Your task to perform on an android device: turn on the 12-hour format for clock Image 0: 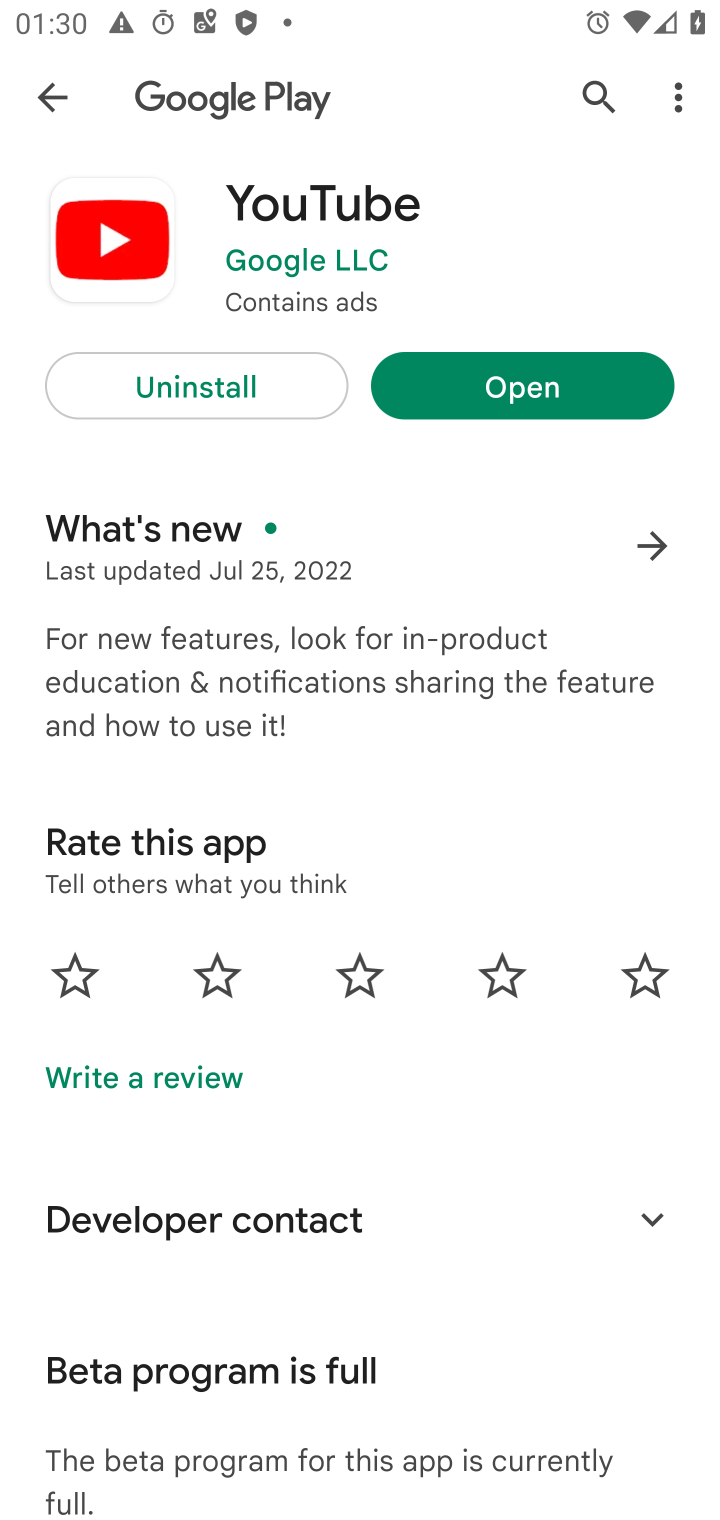
Step 0: press home button
Your task to perform on an android device: turn on the 12-hour format for clock Image 1: 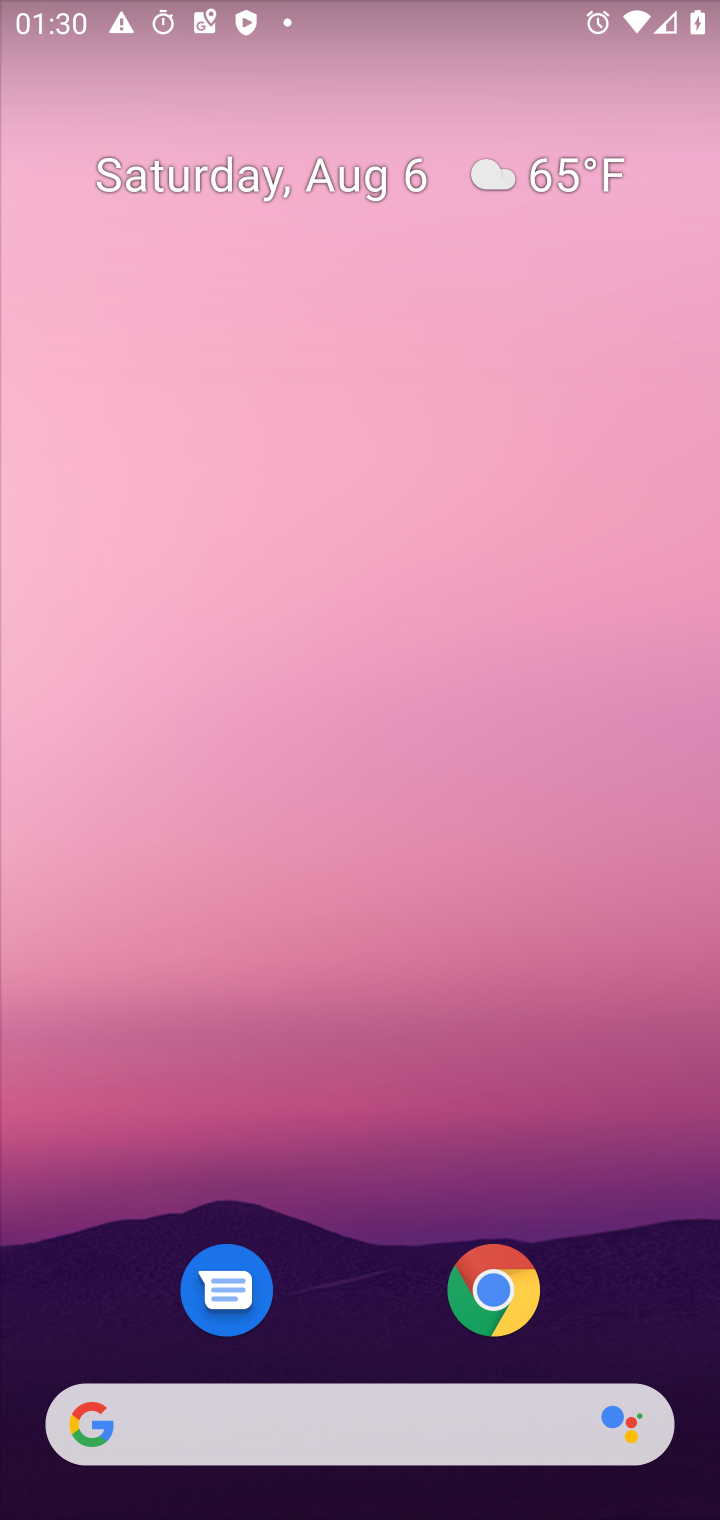
Step 1: drag from (383, 1315) to (480, 248)
Your task to perform on an android device: turn on the 12-hour format for clock Image 2: 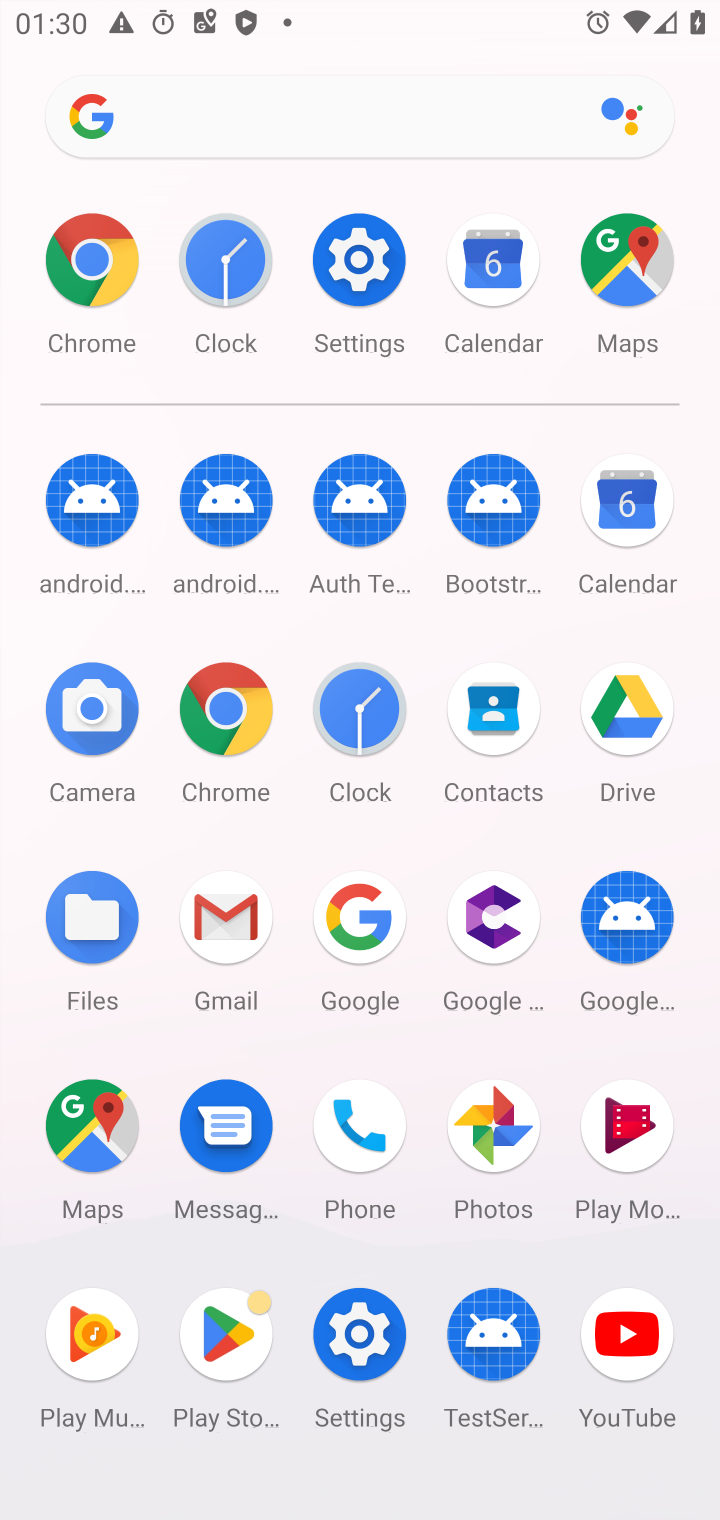
Step 2: click (355, 705)
Your task to perform on an android device: turn on the 12-hour format for clock Image 3: 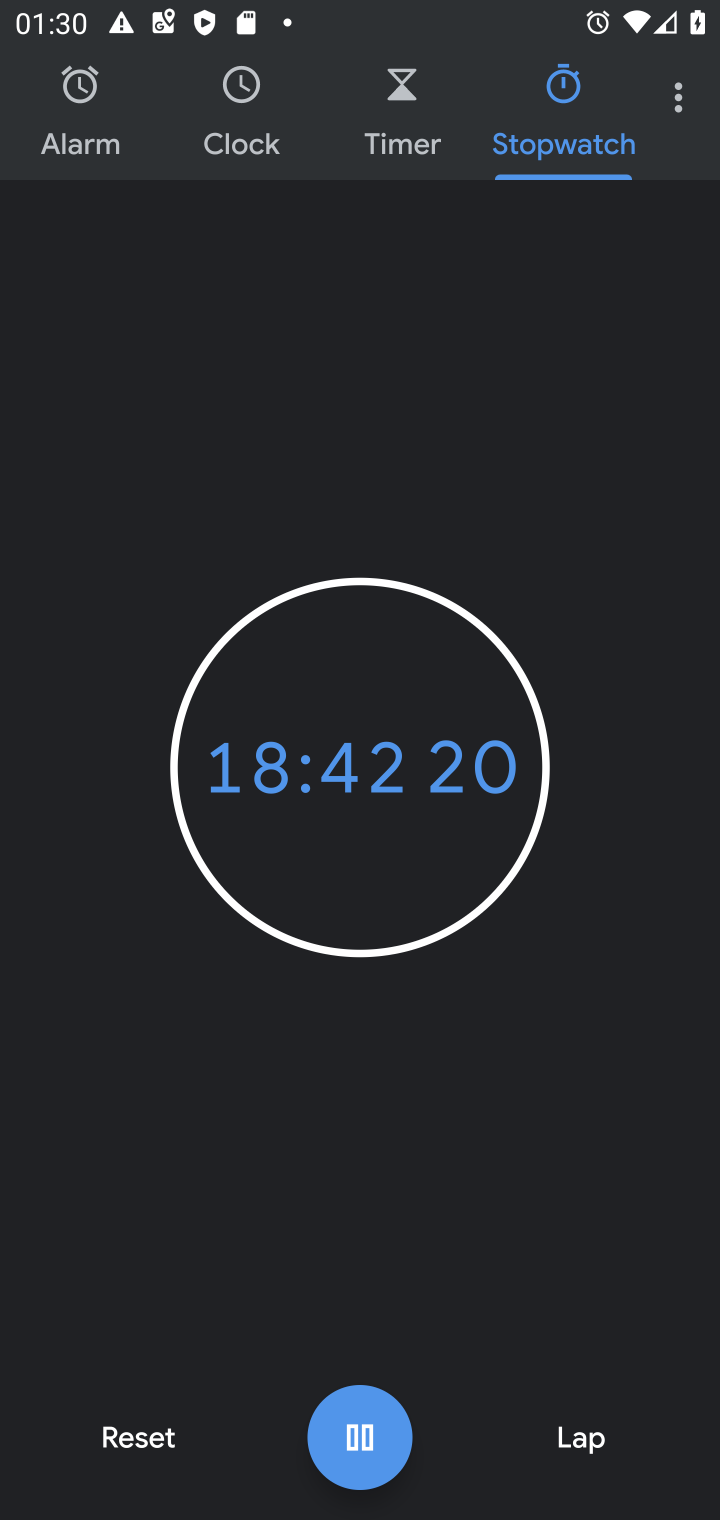
Step 3: click (676, 90)
Your task to perform on an android device: turn on the 12-hour format for clock Image 4: 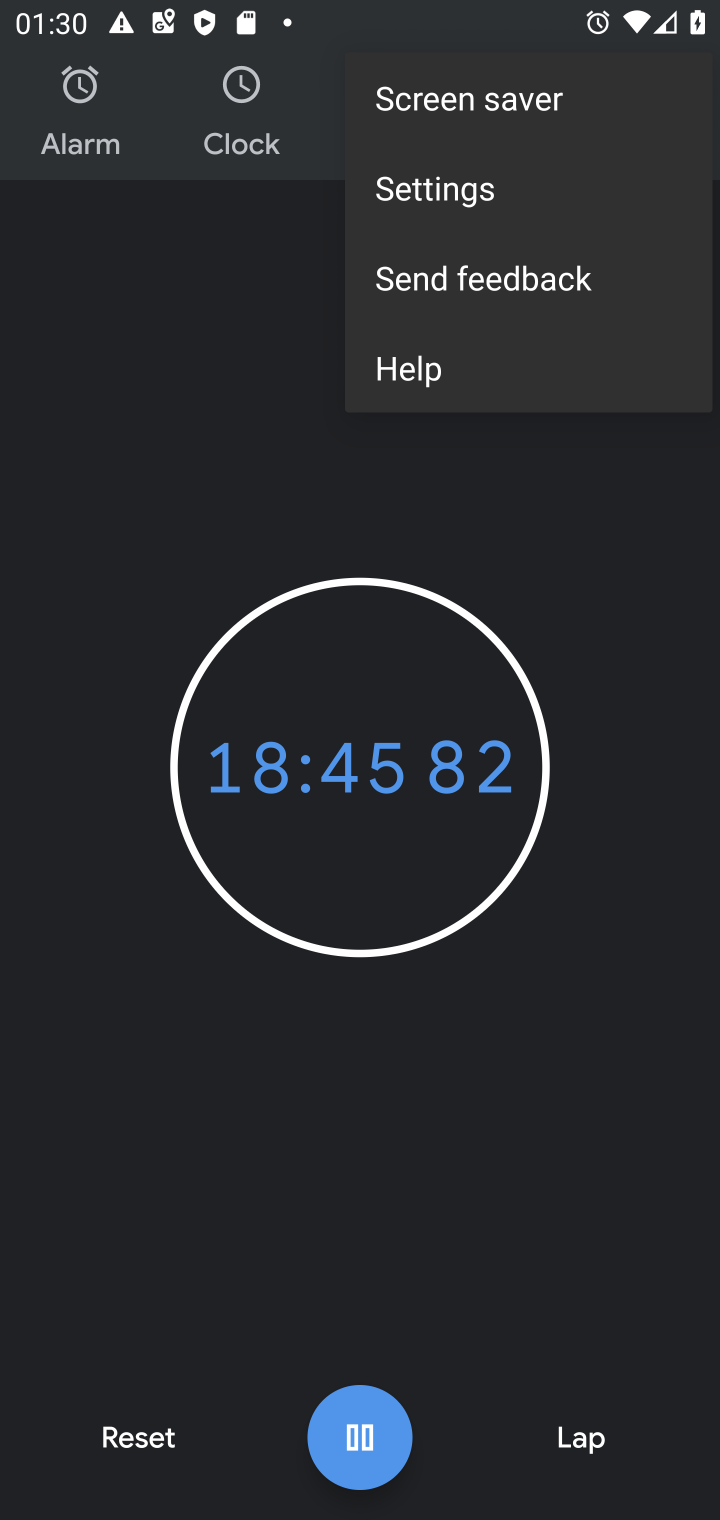
Step 4: click (508, 191)
Your task to perform on an android device: turn on the 12-hour format for clock Image 5: 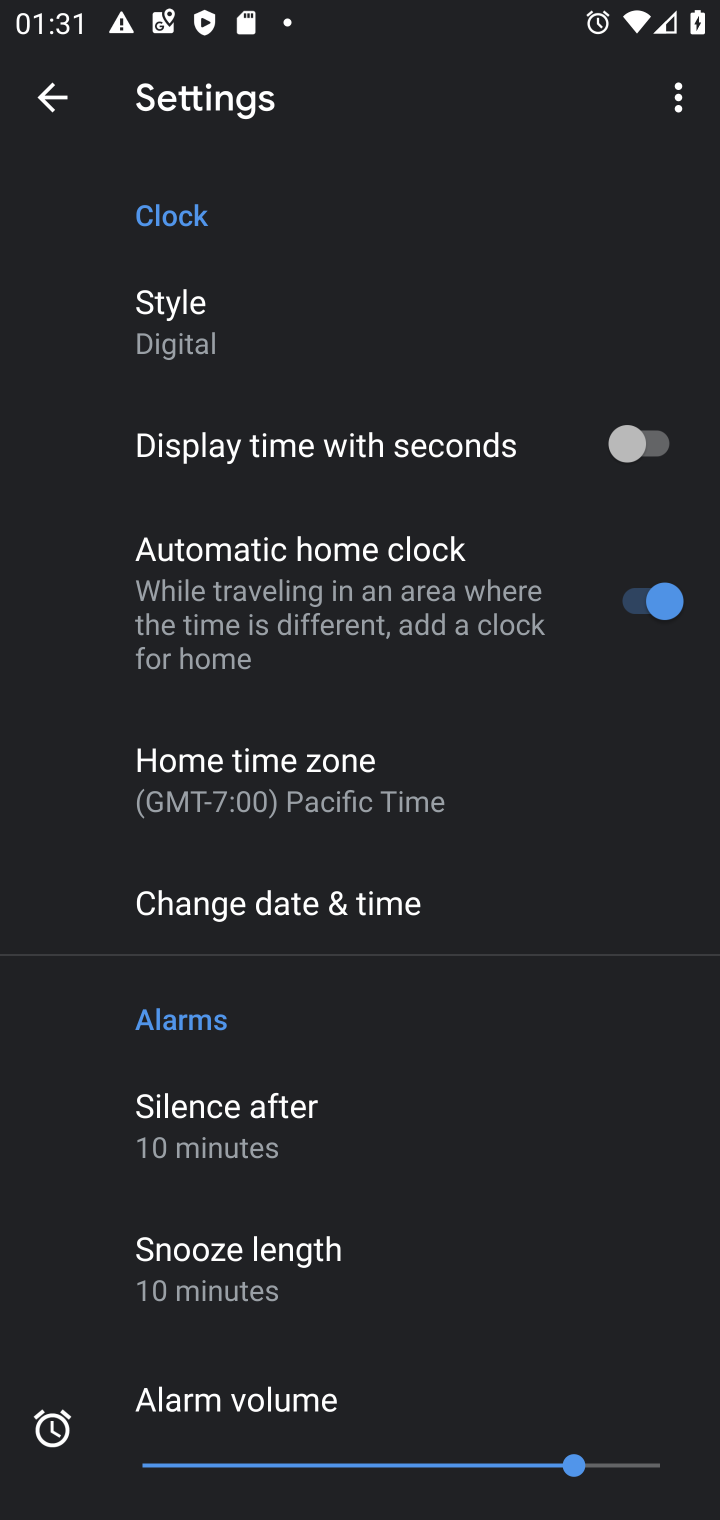
Step 5: click (403, 901)
Your task to perform on an android device: turn on the 12-hour format for clock Image 6: 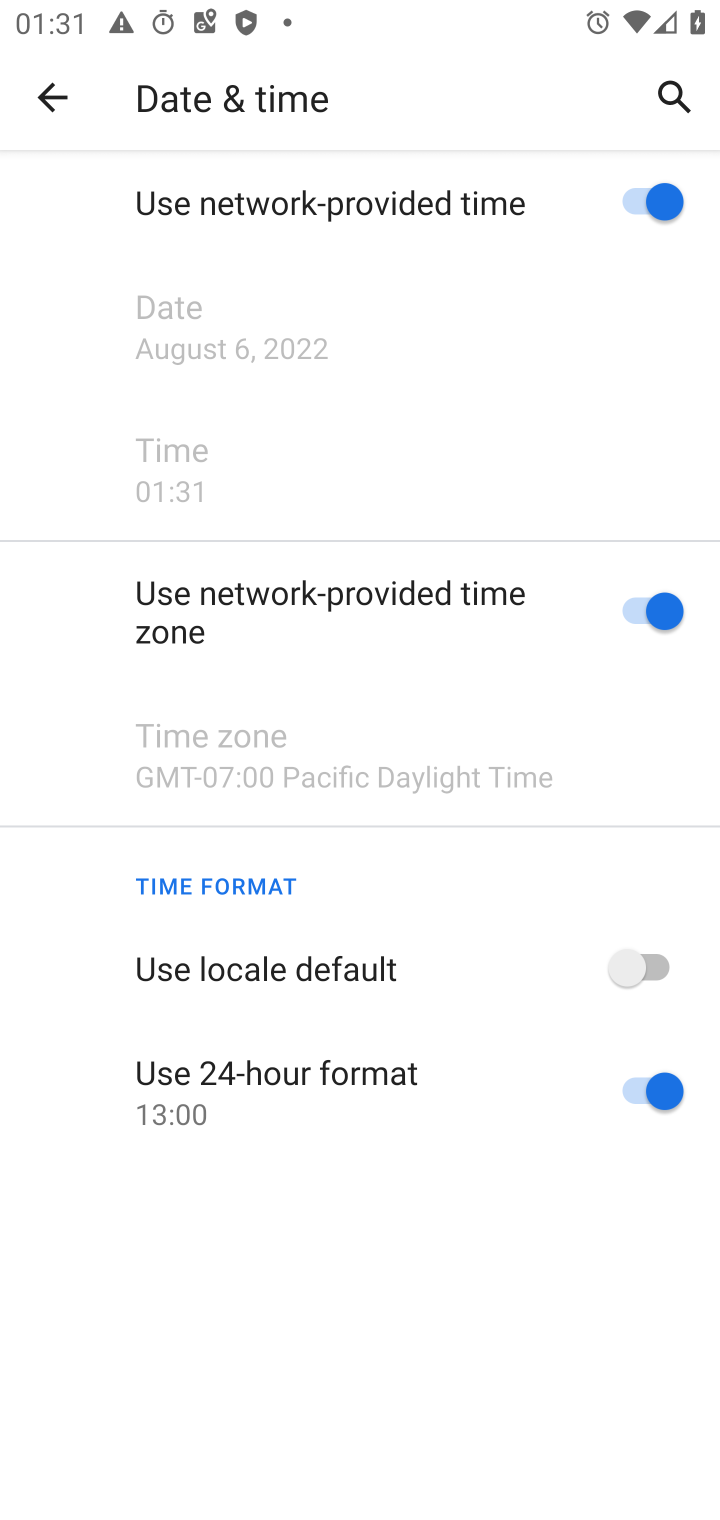
Step 6: click (652, 960)
Your task to perform on an android device: turn on the 12-hour format for clock Image 7: 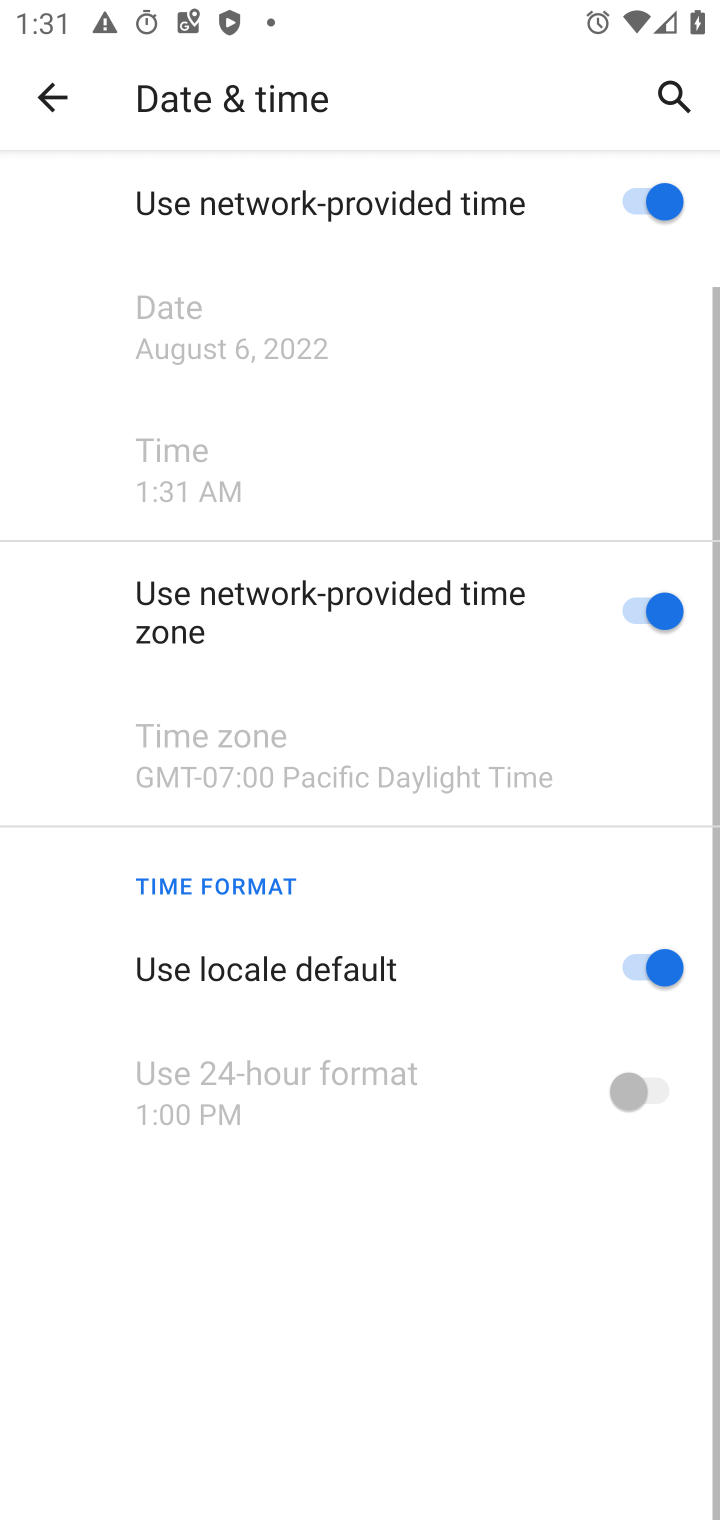
Step 7: task complete